Your task to perform on an android device: change keyboard looks Image 0: 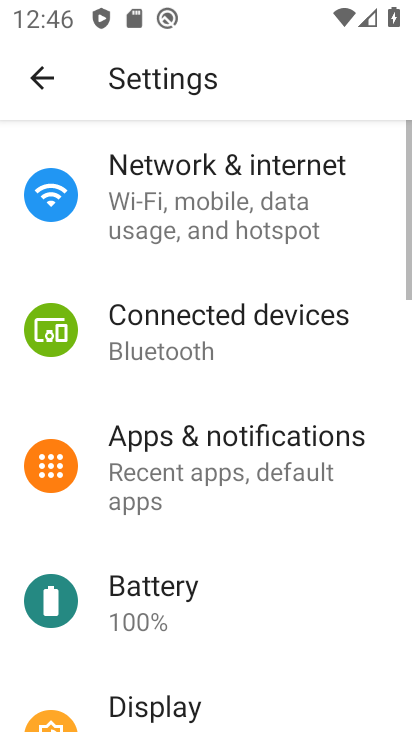
Step 0: drag from (279, 665) to (251, 201)
Your task to perform on an android device: change keyboard looks Image 1: 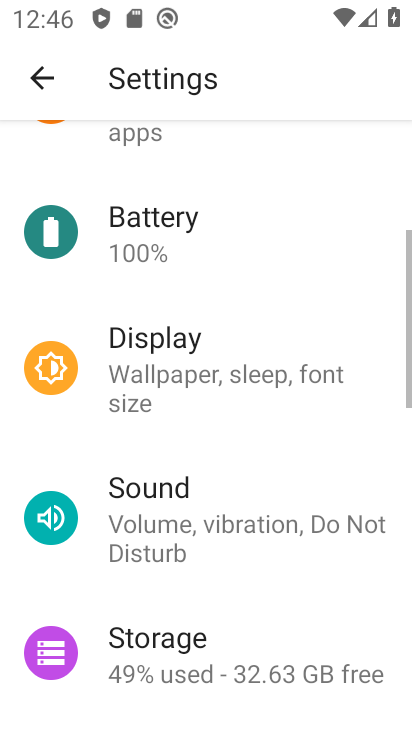
Step 1: drag from (255, 594) to (250, 182)
Your task to perform on an android device: change keyboard looks Image 2: 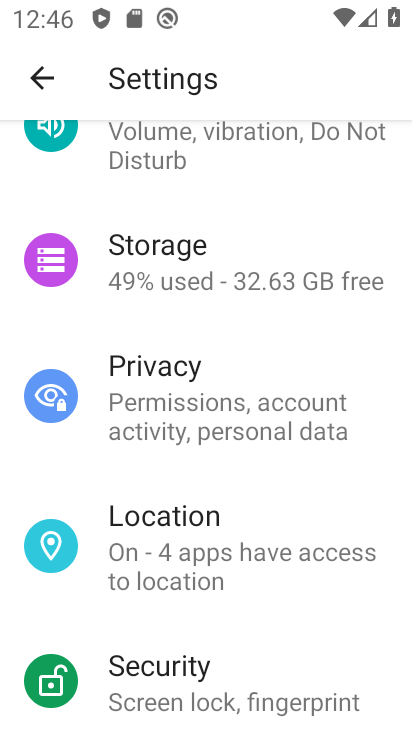
Step 2: drag from (239, 637) to (199, 175)
Your task to perform on an android device: change keyboard looks Image 3: 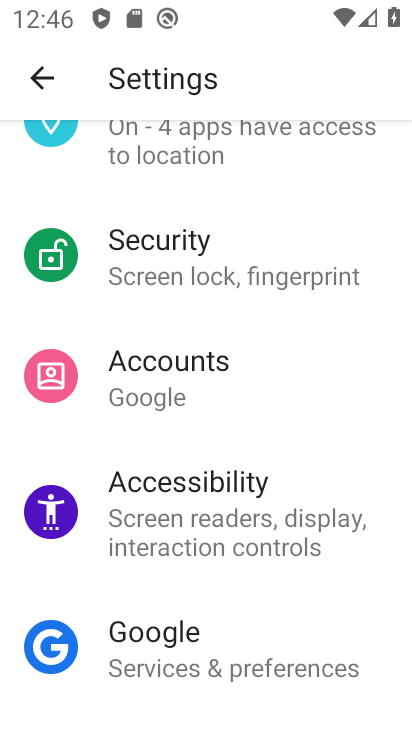
Step 3: drag from (224, 603) to (186, 216)
Your task to perform on an android device: change keyboard looks Image 4: 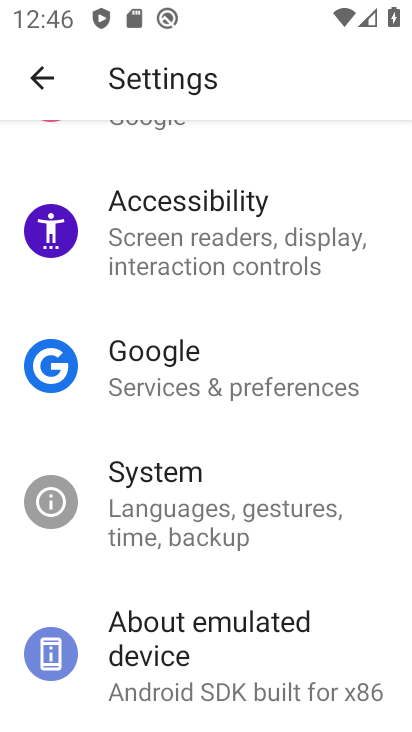
Step 4: click (219, 642)
Your task to perform on an android device: change keyboard looks Image 5: 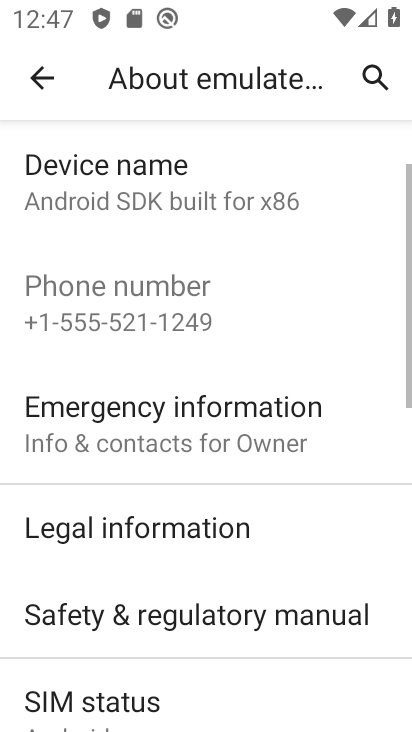
Step 5: drag from (219, 642) to (221, 235)
Your task to perform on an android device: change keyboard looks Image 6: 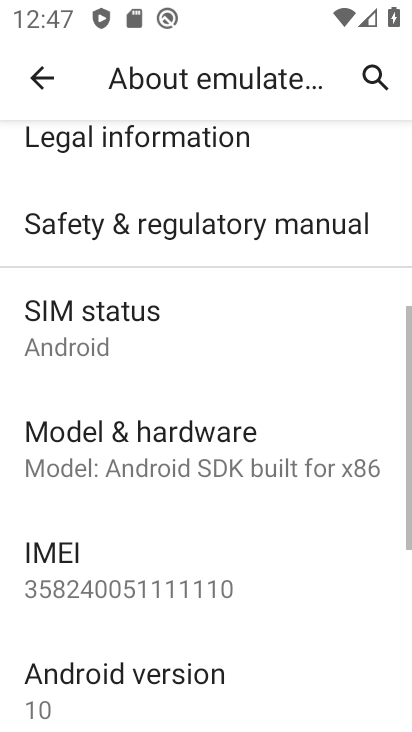
Step 6: drag from (229, 644) to (184, 705)
Your task to perform on an android device: change keyboard looks Image 7: 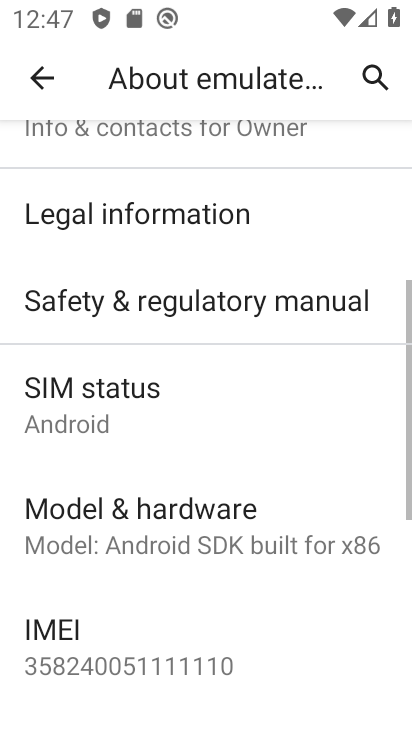
Step 7: click (61, 82)
Your task to perform on an android device: change keyboard looks Image 8: 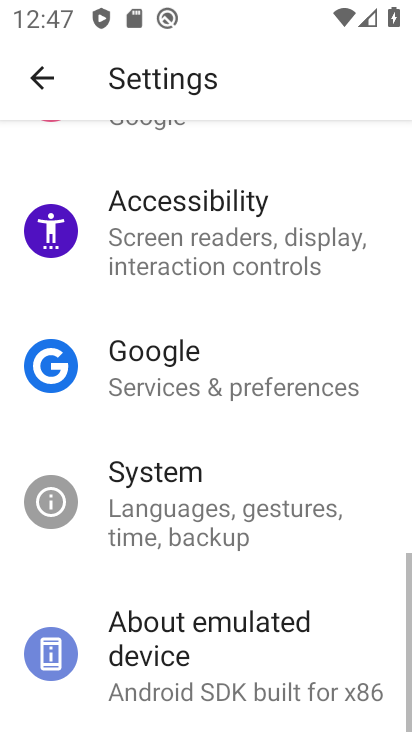
Step 8: click (176, 549)
Your task to perform on an android device: change keyboard looks Image 9: 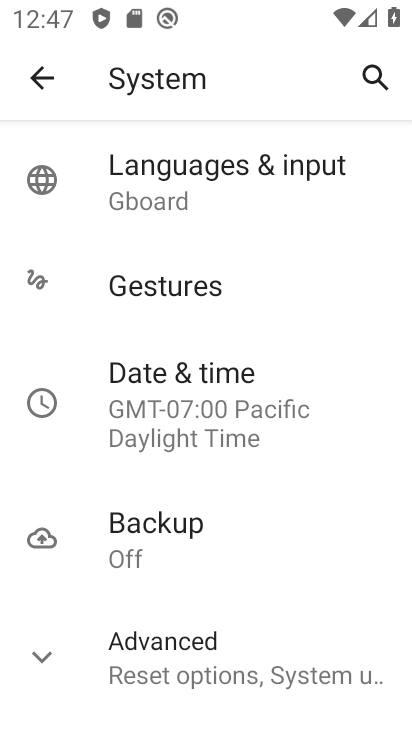
Step 9: click (199, 195)
Your task to perform on an android device: change keyboard looks Image 10: 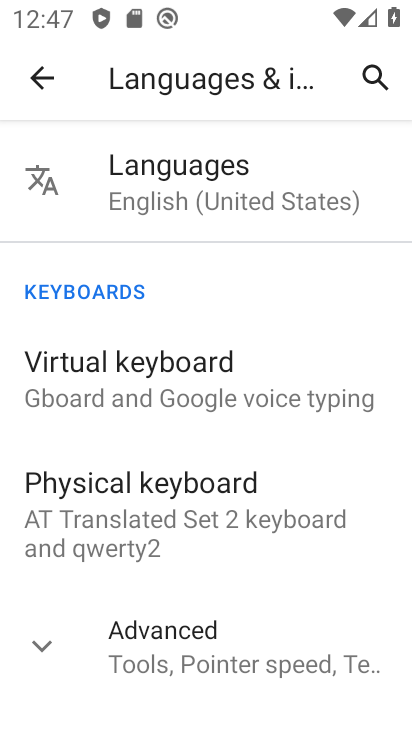
Step 10: click (170, 396)
Your task to perform on an android device: change keyboard looks Image 11: 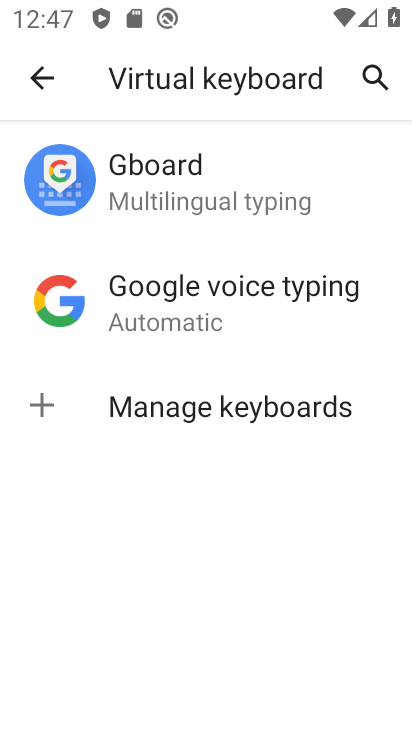
Step 11: click (168, 196)
Your task to perform on an android device: change keyboard looks Image 12: 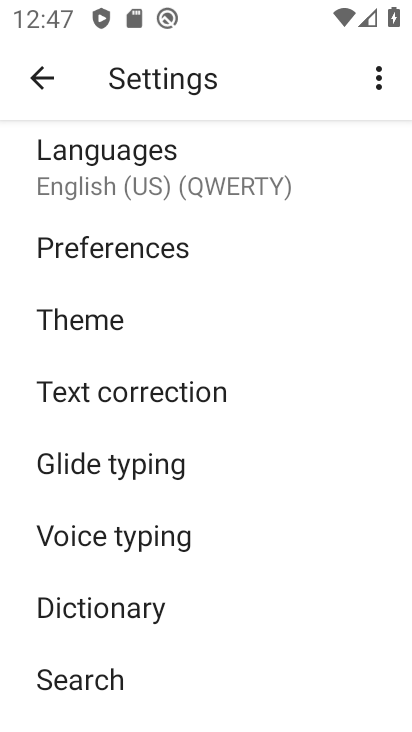
Step 12: click (129, 321)
Your task to perform on an android device: change keyboard looks Image 13: 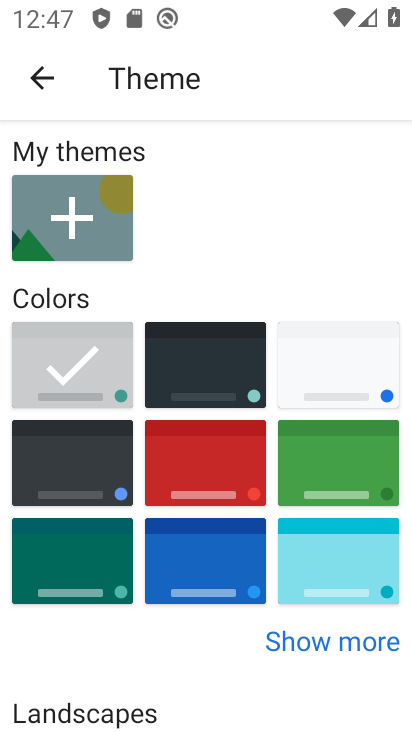
Step 13: click (208, 363)
Your task to perform on an android device: change keyboard looks Image 14: 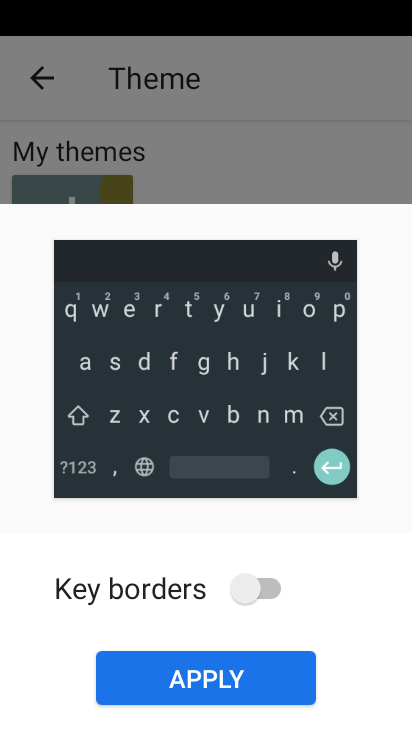
Step 14: click (153, 683)
Your task to perform on an android device: change keyboard looks Image 15: 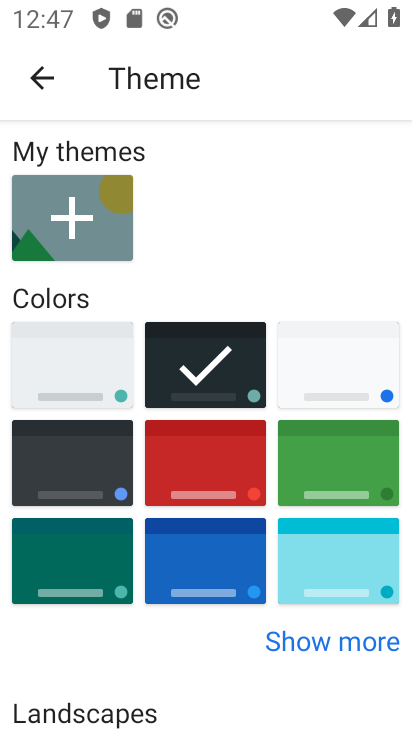
Step 15: task complete